Your task to perform on an android device: open app "PUBG MOBILE" Image 0: 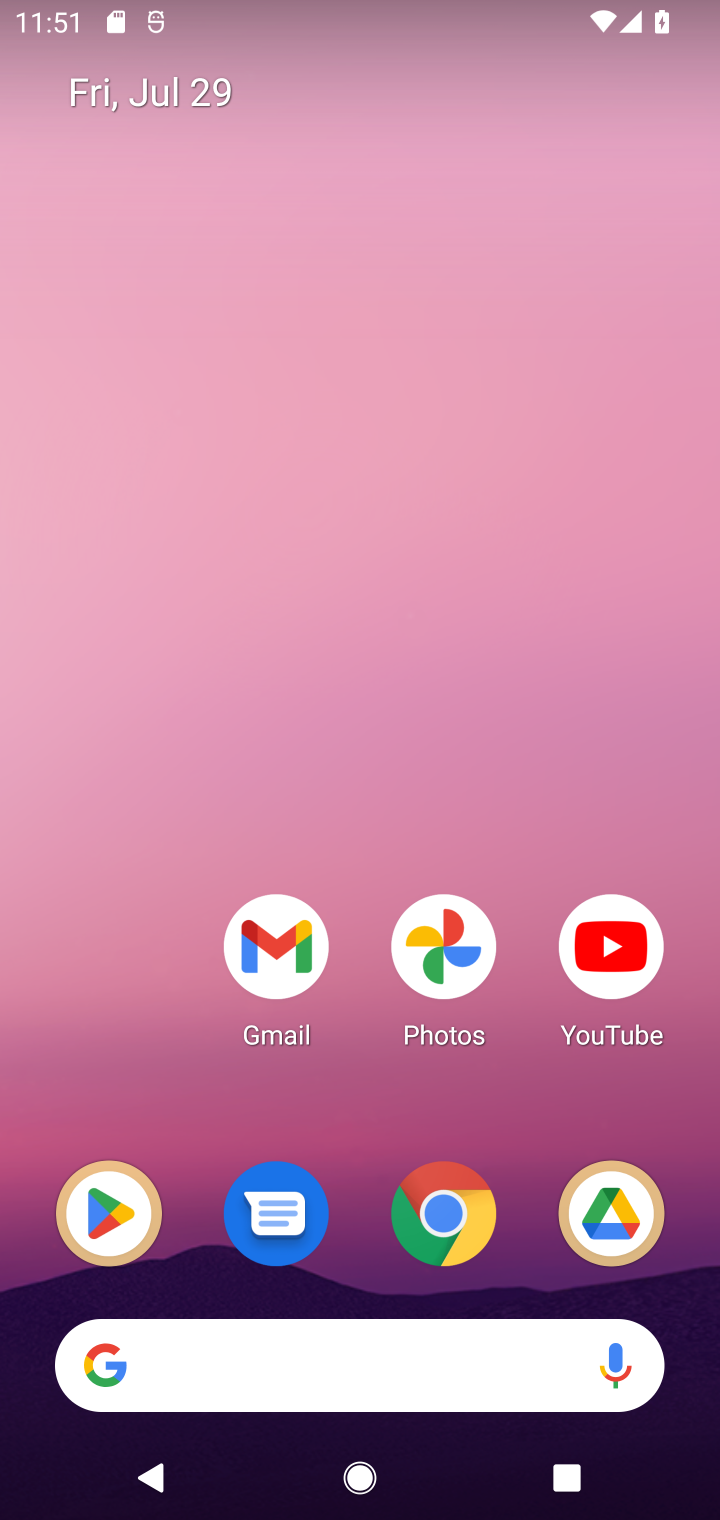
Step 0: click (111, 1197)
Your task to perform on an android device: open app "PUBG MOBILE" Image 1: 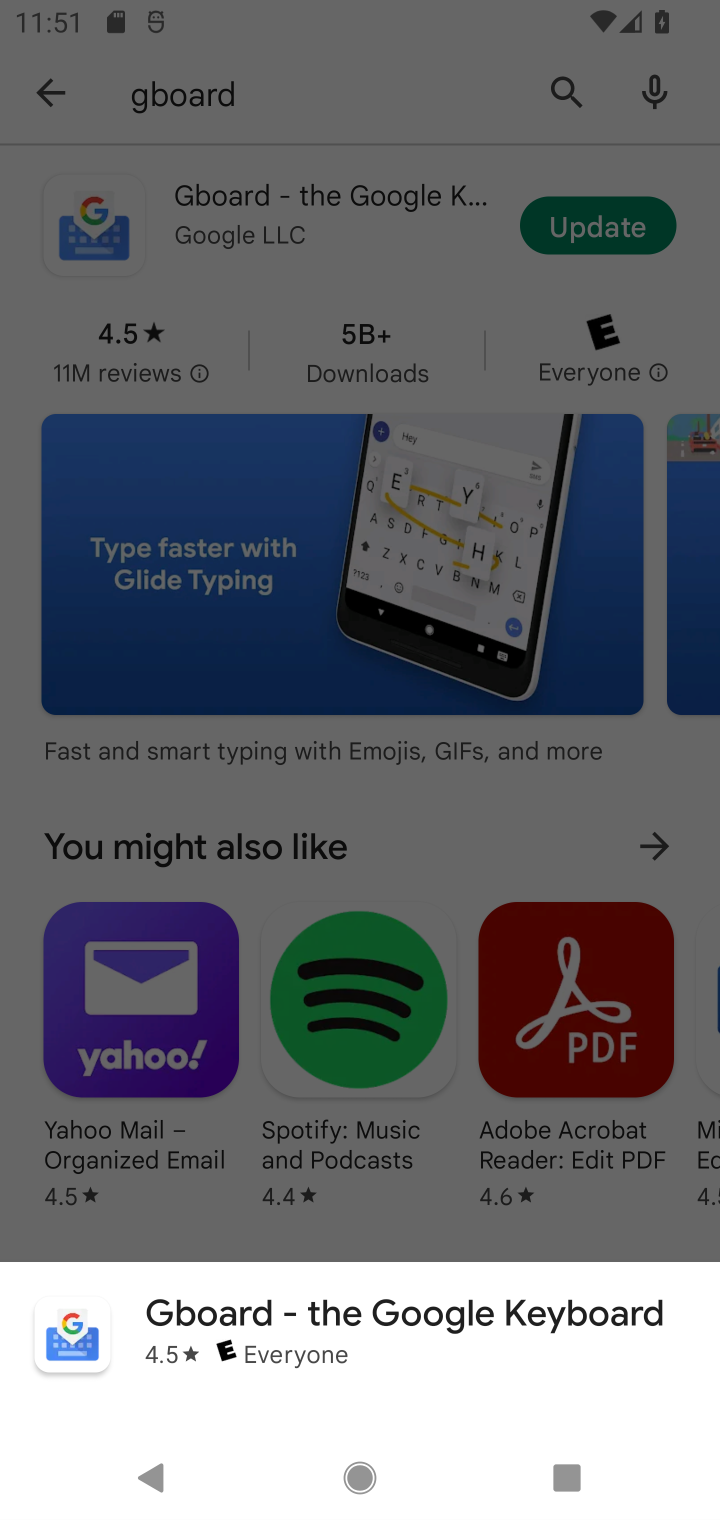
Step 1: click (551, 83)
Your task to perform on an android device: open app "PUBG MOBILE" Image 2: 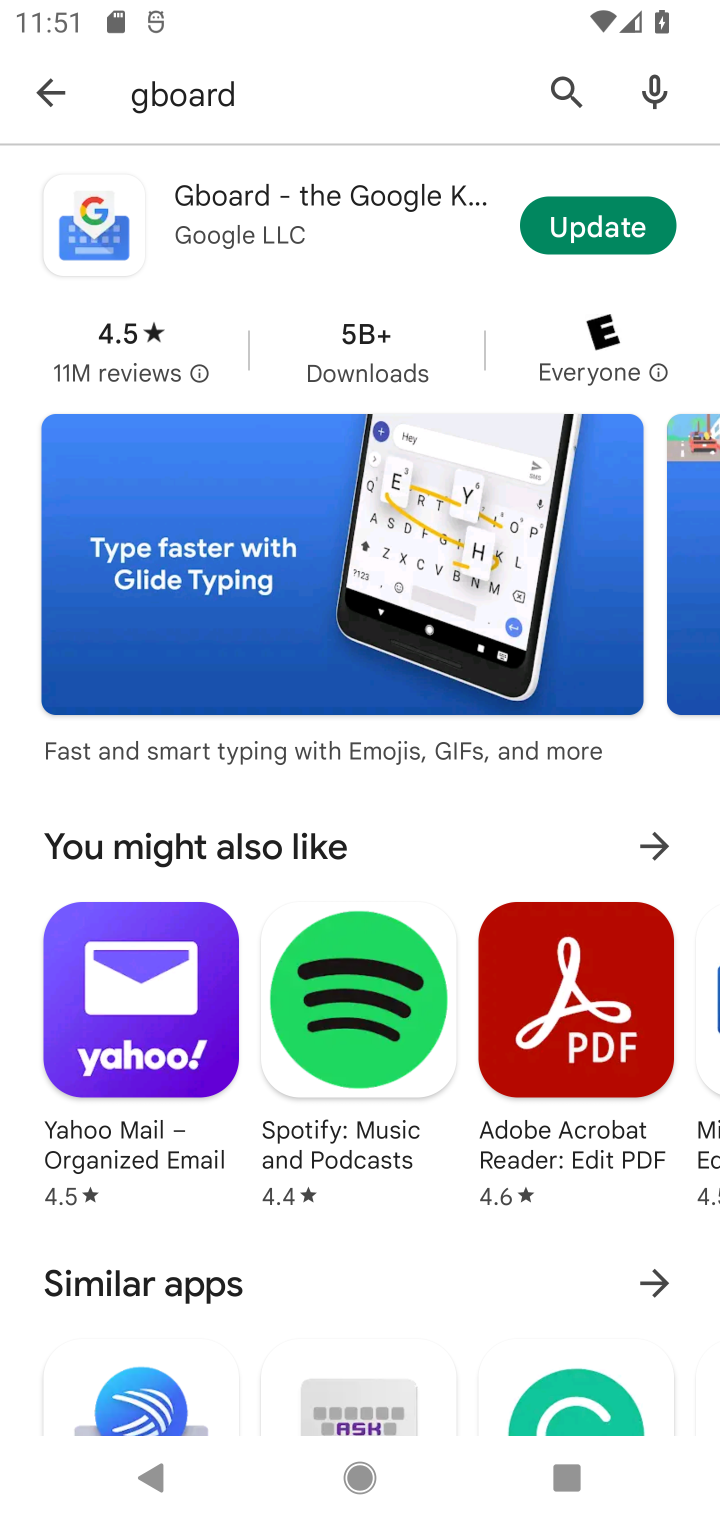
Step 2: click (568, 84)
Your task to perform on an android device: open app "PUBG MOBILE" Image 3: 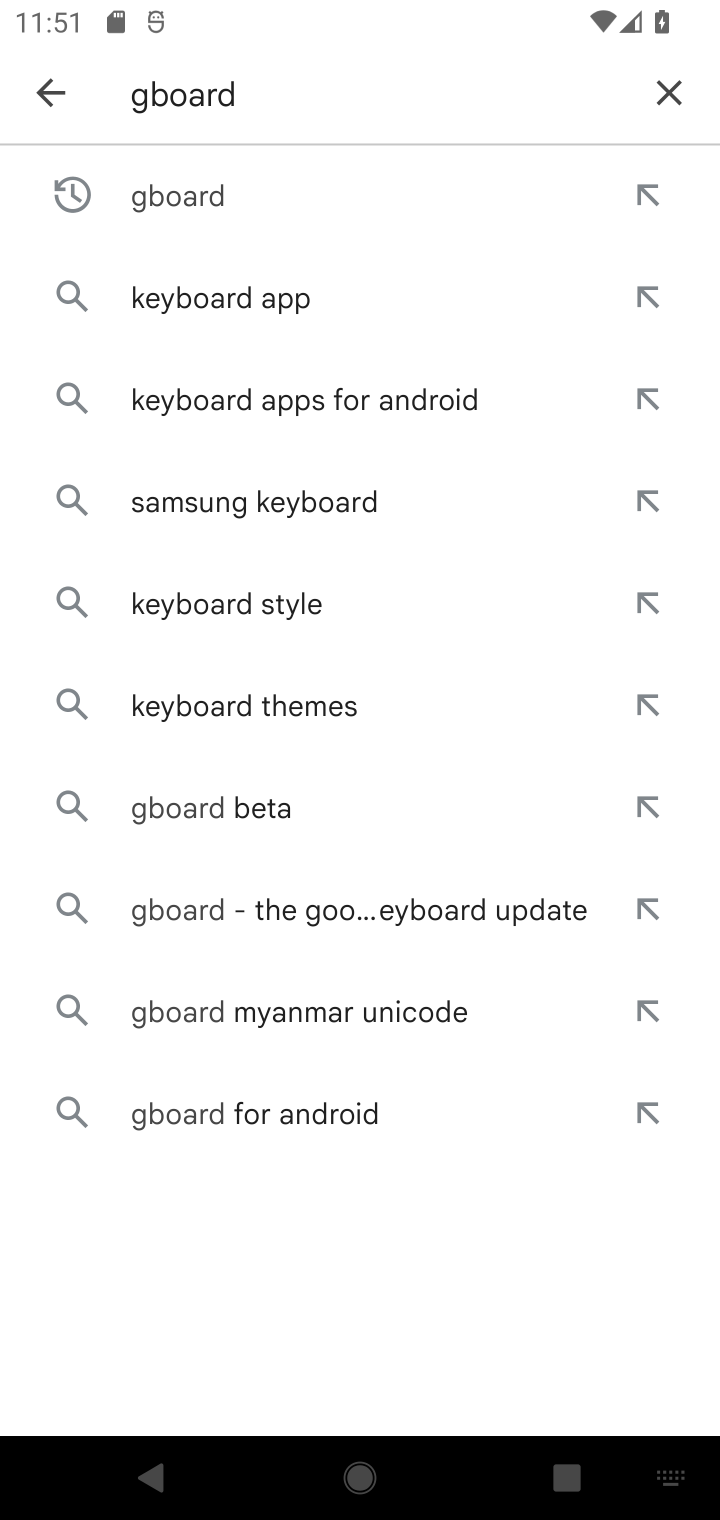
Step 3: click (671, 95)
Your task to perform on an android device: open app "PUBG MOBILE" Image 4: 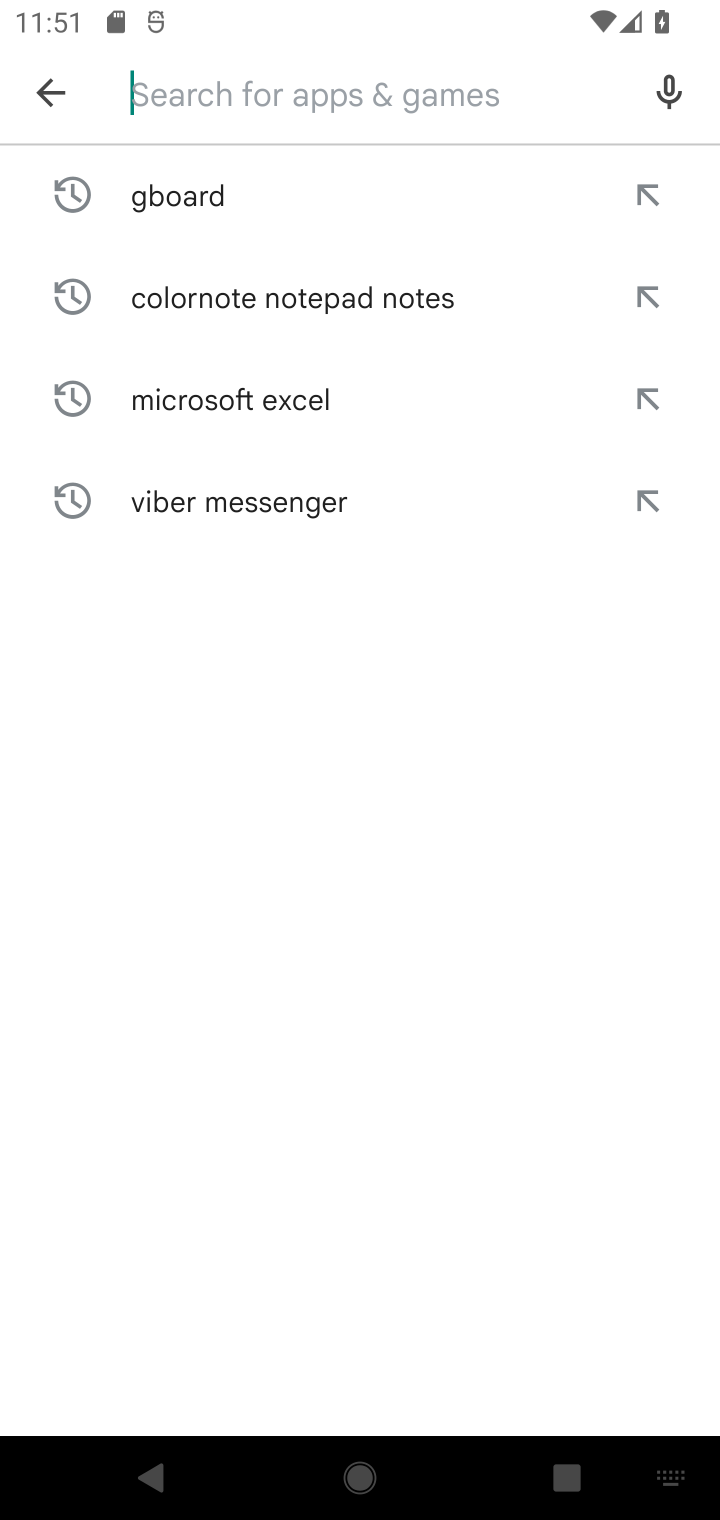
Step 4: type "PUBG MOBILE"
Your task to perform on an android device: open app "PUBG MOBILE" Image 5: 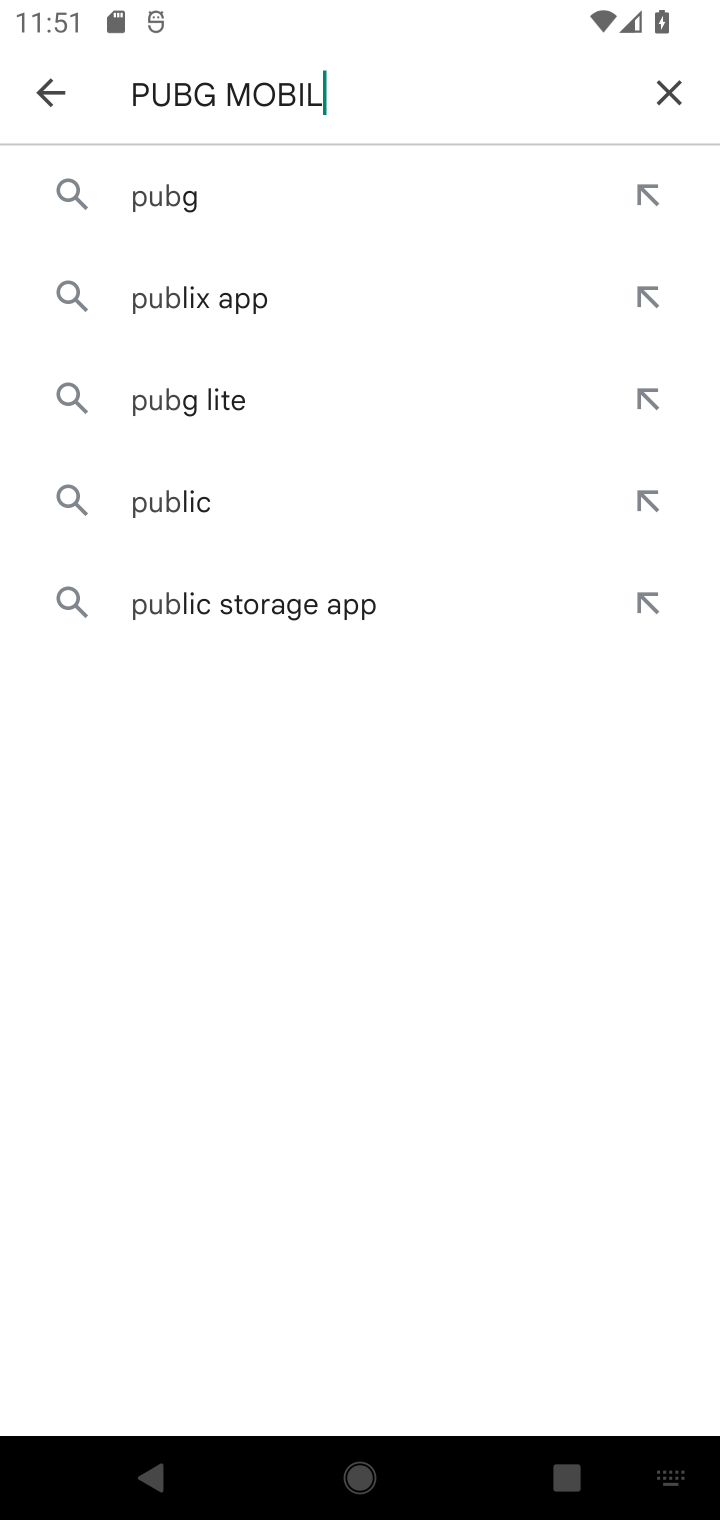
Step 5: type ""
Your task to perform on an android device: open app "PUBG MOBILE" Image 6: 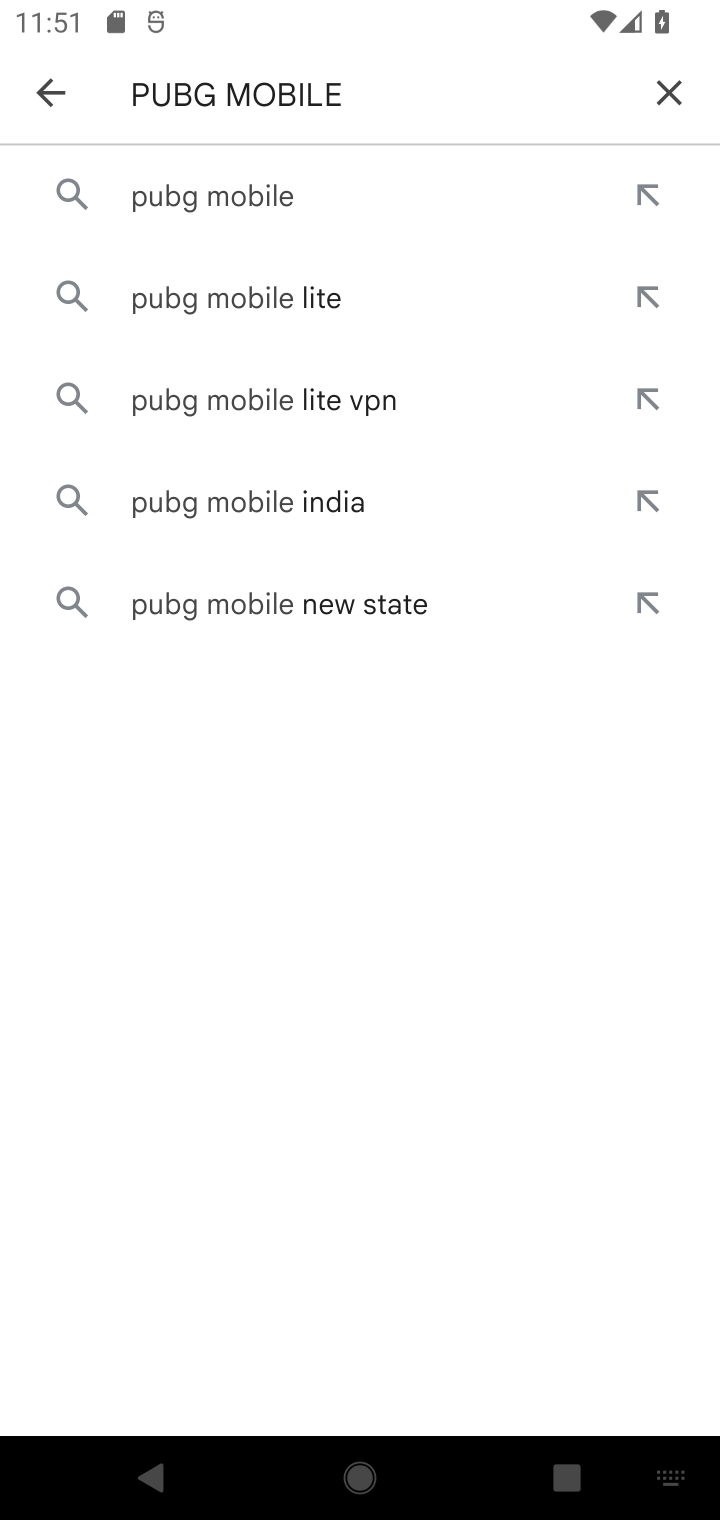
Step 6: click (248, 194)
Your task to perform on an android device: open app "PUBG MOBILE" Image 7: 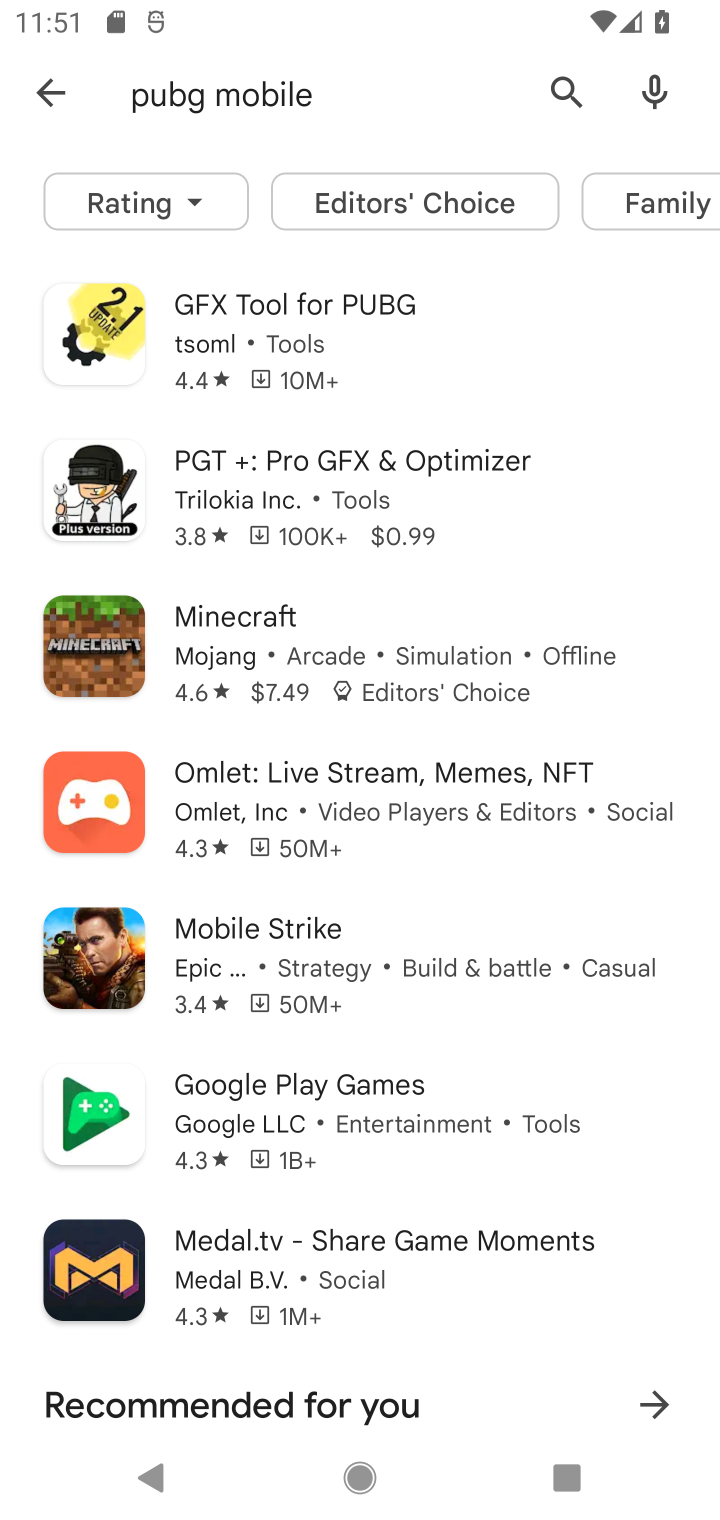
Step 7: task complete